Your task to perform on an android device: When is my next appointment? Image 0: 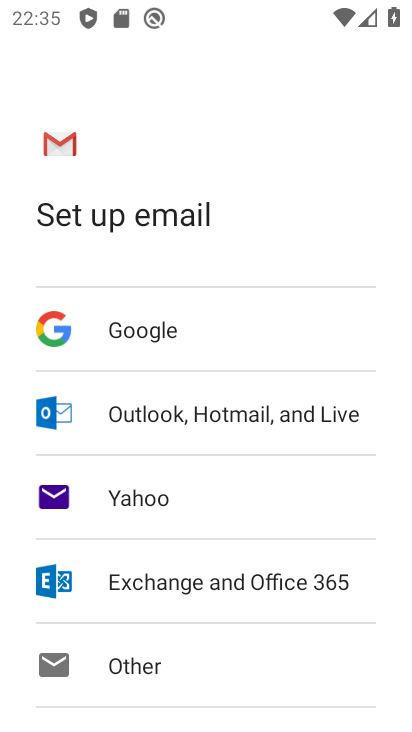
Step 0: press home button
Your task to perform on an android device: When is my next appointment? Image 1: 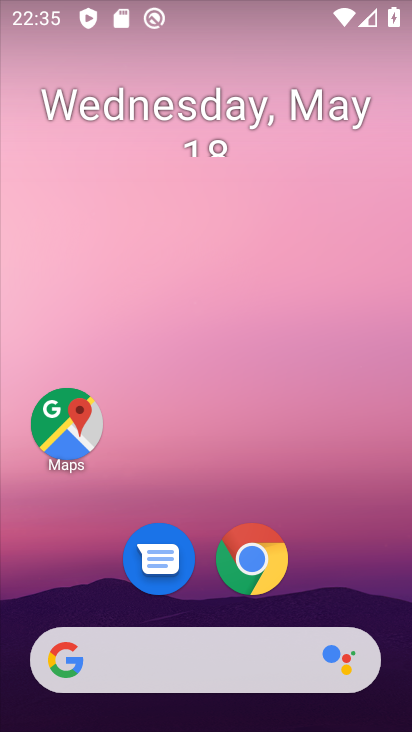
Step 1: drag from (335, 571) to (304, 136)
Your task to perform on an android device: When is my next appointment? Image 2: 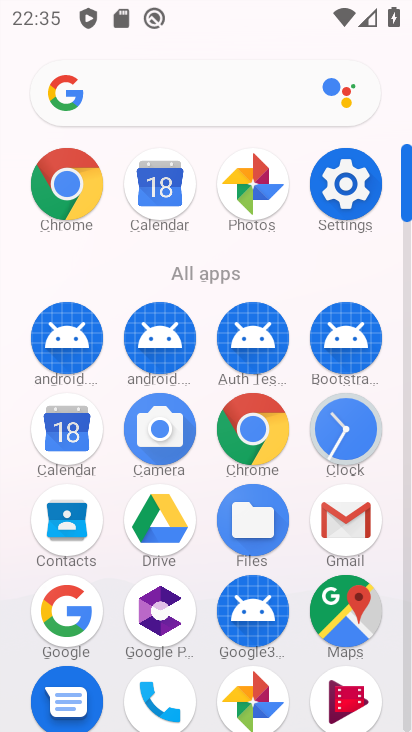
Step 2: click (71, 455)
Your task to perform on an android device: When is my next appointment? Image 3: 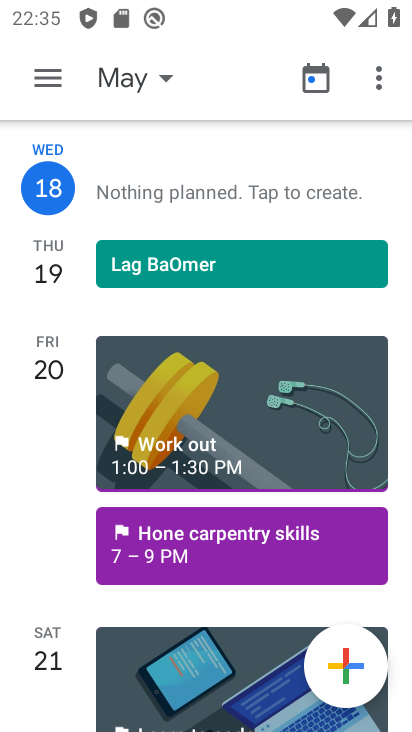
Step 3: task complete